Your task to perform on an android device: Show me the alarms in the clock app Image 0: 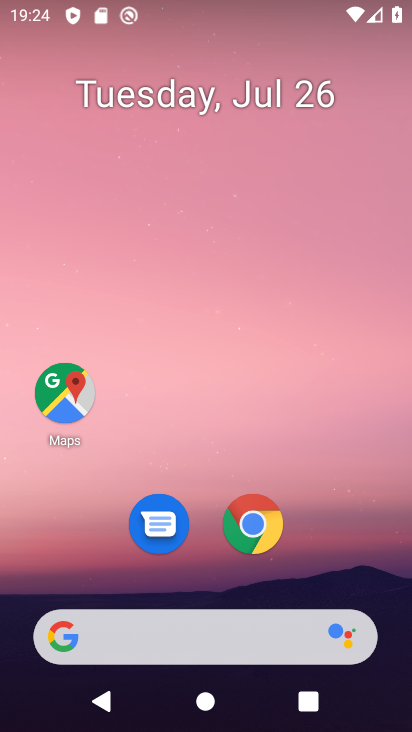
Step 0: press home button
Your task to perform on an android device: Show me the alarms in the clock app Image 1: 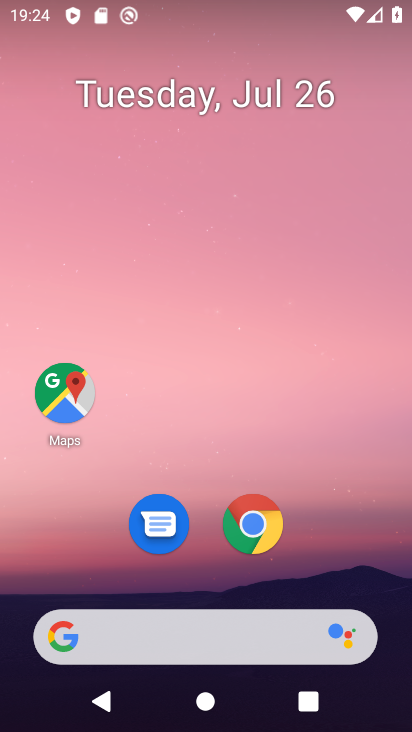
Step 1: drag from (185, 625) to (342, 85)
Your task to perform on an android device: Show me the alarms in the clock app Image 2: 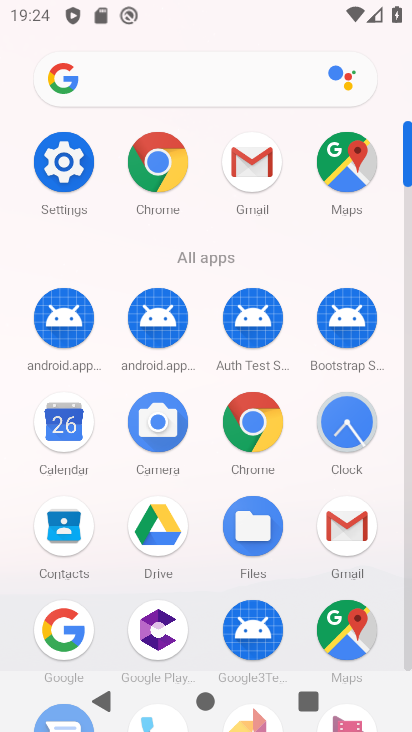
Step 2: click (348, 428)
Your task to perform on an android device: Show me the alarms in the clock app Image 3: 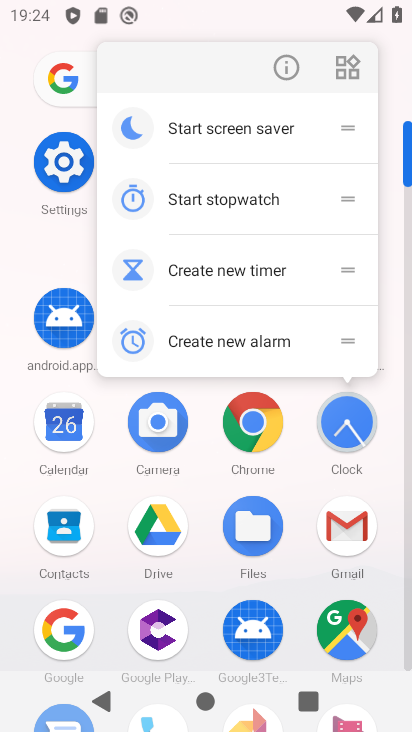
Step 3: click (346, 420)
Your task to perform on an android device: Show me the alarms in the clock app Image 4: 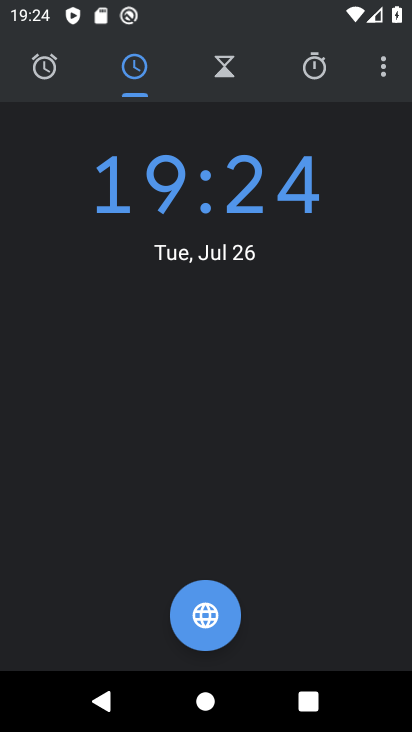
Step 4: click (47, 67)
Your task to perform on an android device: Show me the alarms in the clock app Image 5: 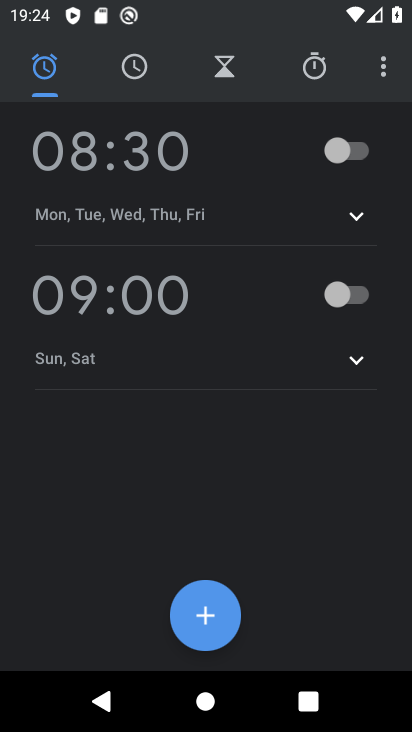
Step 5: task complete